Your task to perform on an android device: turn off airplane mode Image 0: 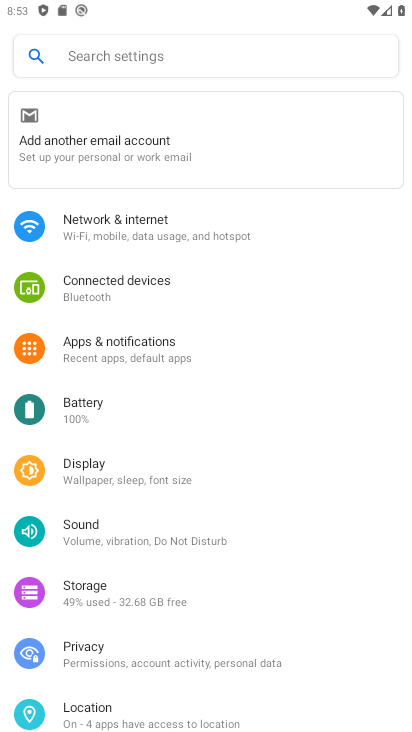
Step 0: click (251, 232)
Your task to perform on an android device: turn off airplane mode Image 1: 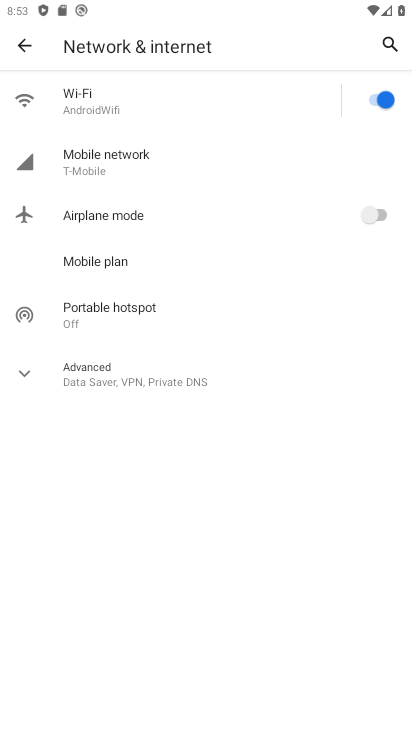
Step 1: task complete